Your task to perform on an android device: Go to location settings Image 0: 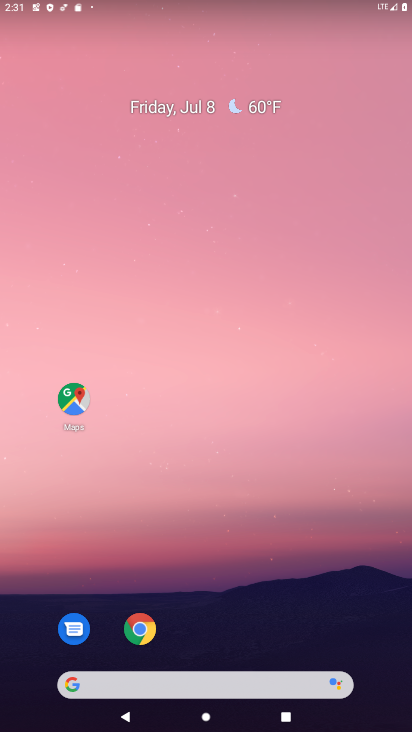
Step 0: drag from (200, 617) to (200, 193)
Your task to perform on an android device: Go to location settings Image 1: 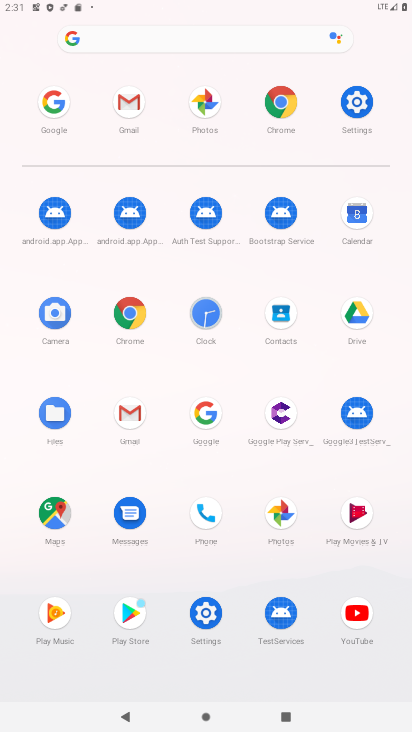
Step 1: click (344, 108)
Your task to perform on an android device: Go to location settings Image 2: 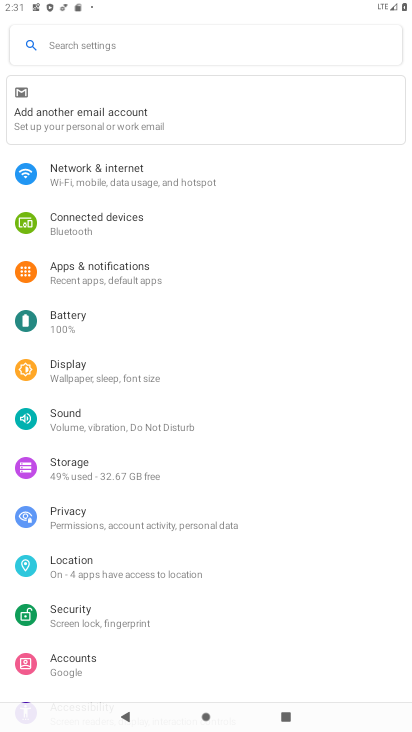
Step 2: click (131, 578)
Your task to perform on an android device: Go to location settings Image 3: 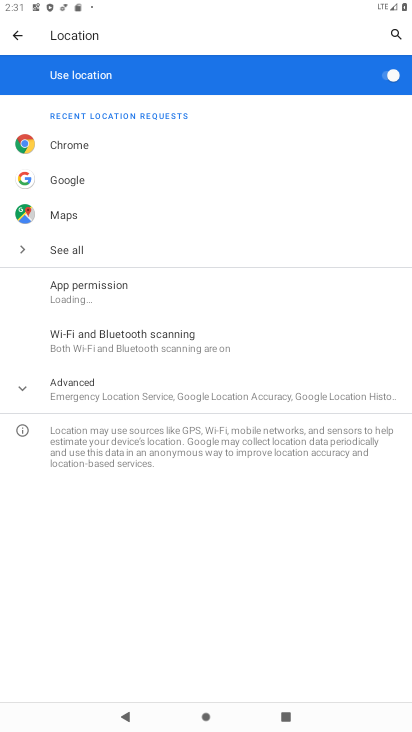
Step 3: task complete